Your task to perform on an android device: Search for sushi restaurants on Maps Image 0: 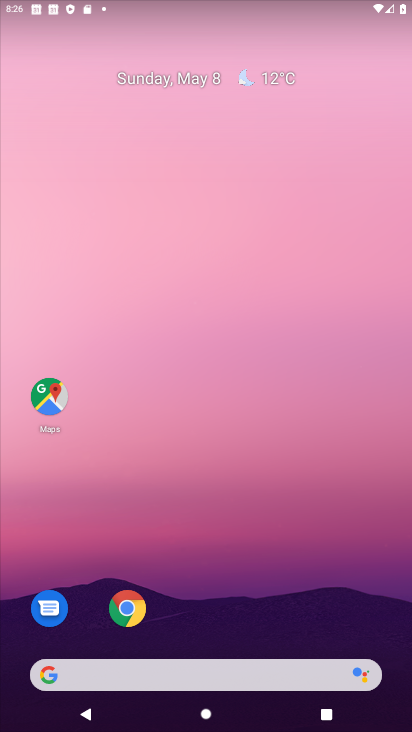
Step 0: drag from (262, 600) to (245, 23)
Your task to perform on an android device: Search for sushi restaurants on Maps Image 1: 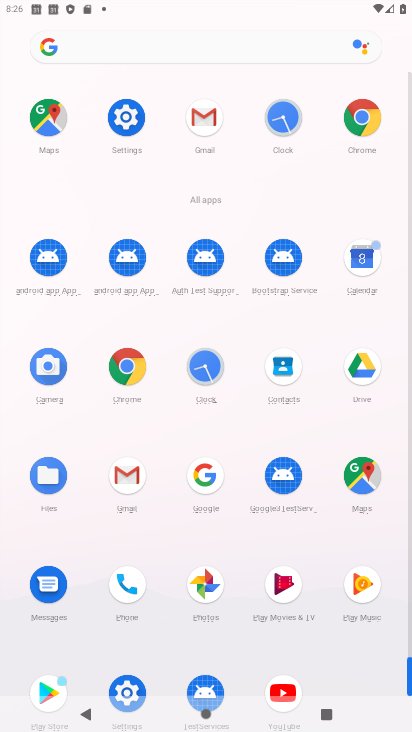
Step 1: click (358, 476)
Your task to perform on an android device: Search for sushi restaurants on Maps Image 2: 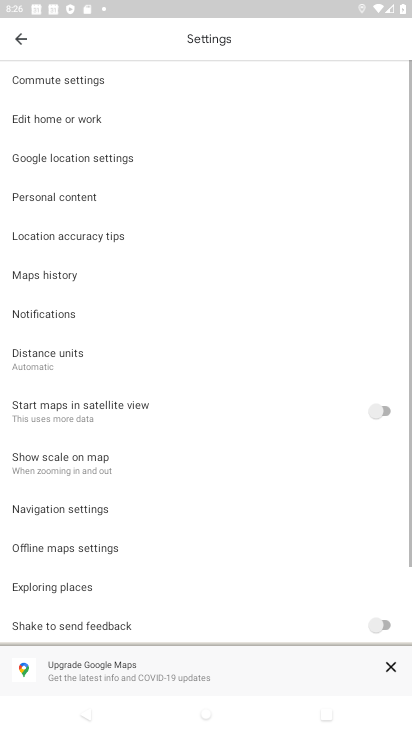
Step 2: click (26, 48)
Your task to perform on an android device: Search for sushi restaurants on Maps Image 3: 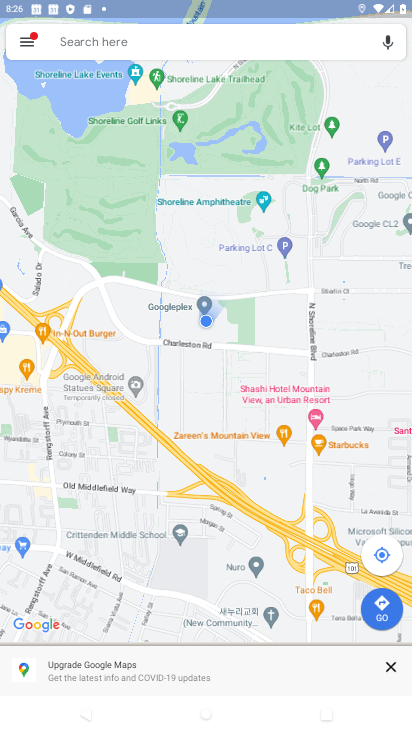
Step 3: click (145, 44)
Your task to perform on an android device: Search for sushi restaurants on Maps Image 4: 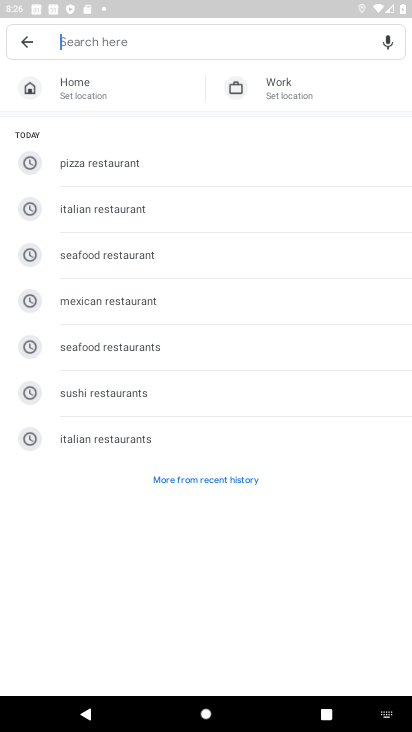
Step 4: click (110, 392)
Your task to perform on an android device: Search for sushi restaurants on Maps Image 5: 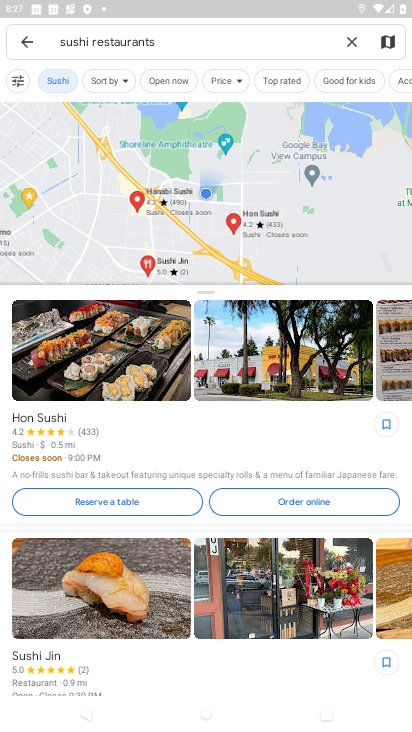
Step 5: task complete